Your task to perform on an android device: toggle translation in the chrome app Image 0: 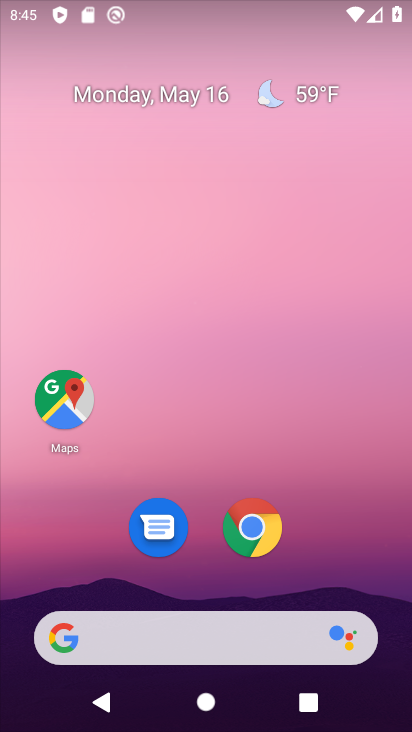
Step 0: click (254, 525)
Your task to perform on an android device: toggle translation in the chrome app Image 1: 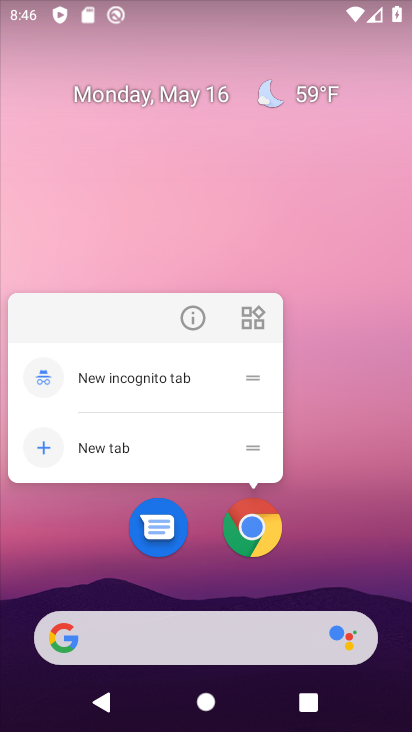
Step 1: click (254, 525)
Your task to perform on an android device: toggle translation in the chrome app Image 2: 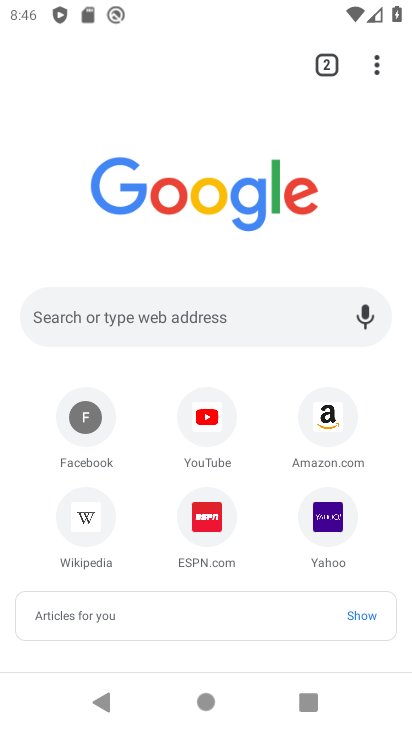
Step 2: click (372, 60)
Your task to perform on an android device: toggle translation in the chrome app Image 3: 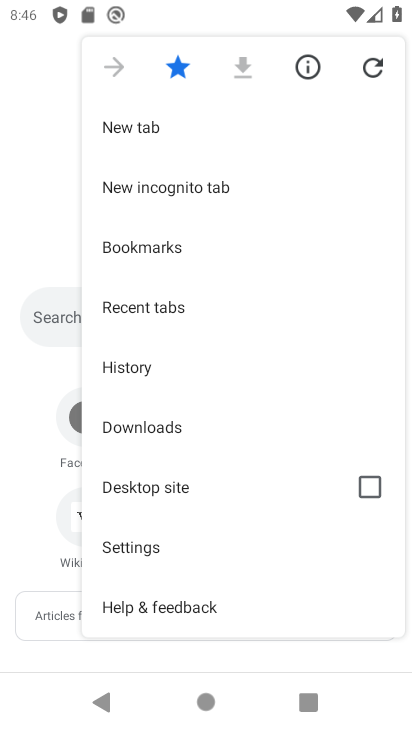
Step 3: click (134, 546)
Your task to perform on an android device: toggle translation in the chrome app Image 4: 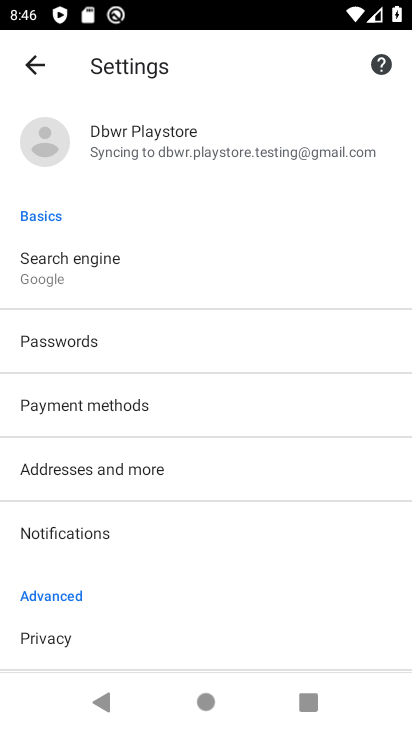
Step 4: drag from (255, 622) to (255, 376)
Your task to perform on an android device: toggle translation in the chrome app Image 5: 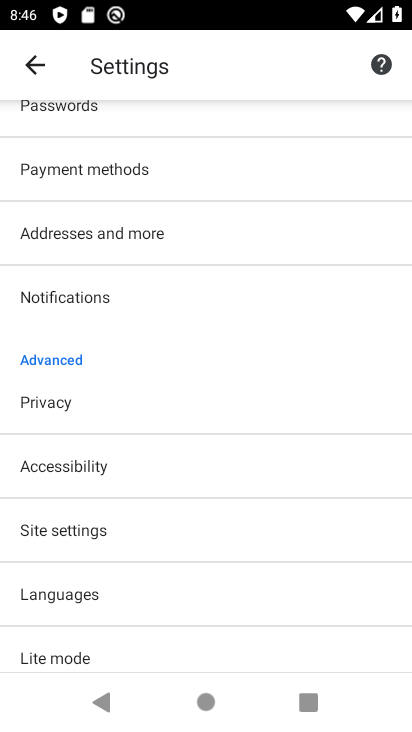
Step 5: click (65, 589)
Your task to perform on an android device: toggle translation in the chrome app Image 6: 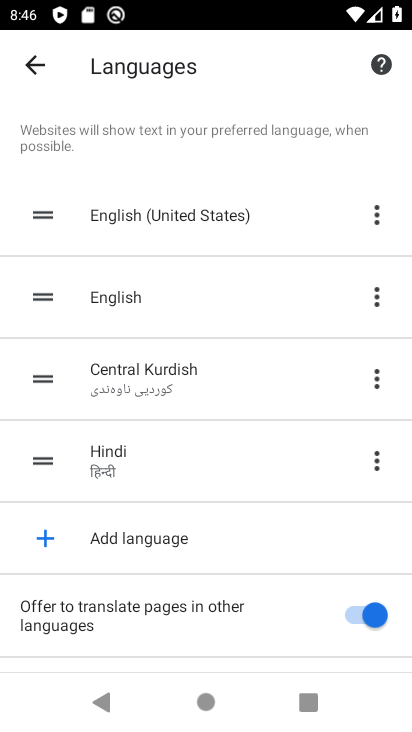
Step 6: drag from (298, 423) to (290, 239)
Your task to perform on an android device: toggle translation in the chrome app Image 7: 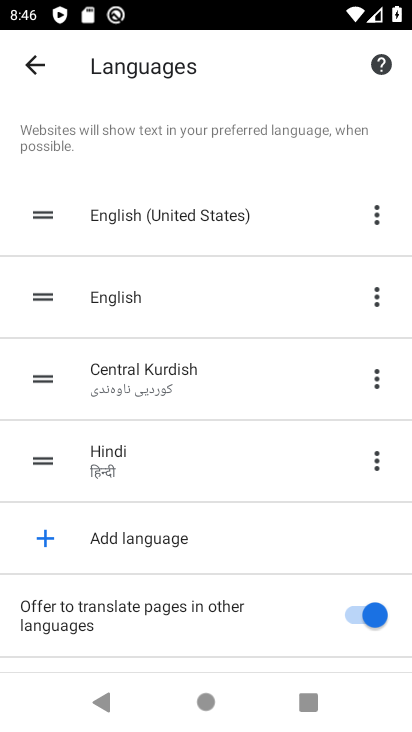
Step 7: drag from (270, 633) to (276, 337)
Your task to perform on an android device: toggle translation in the chrome app Image 8: 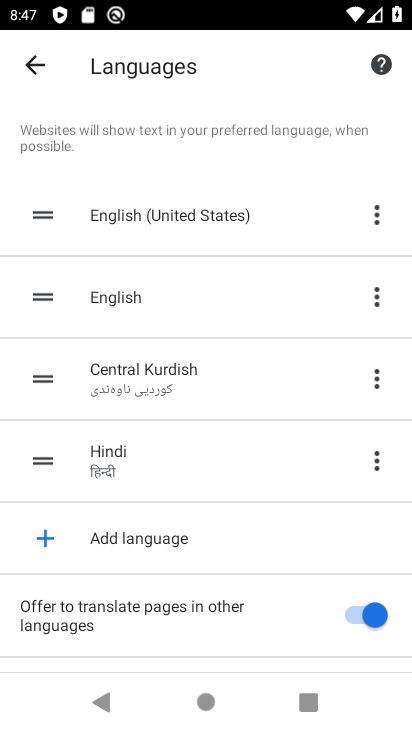
Step 8: drag from (271, 626) to (287, 336)
Your task to perform on an android device: toggle translation in the chrome app Image 9: 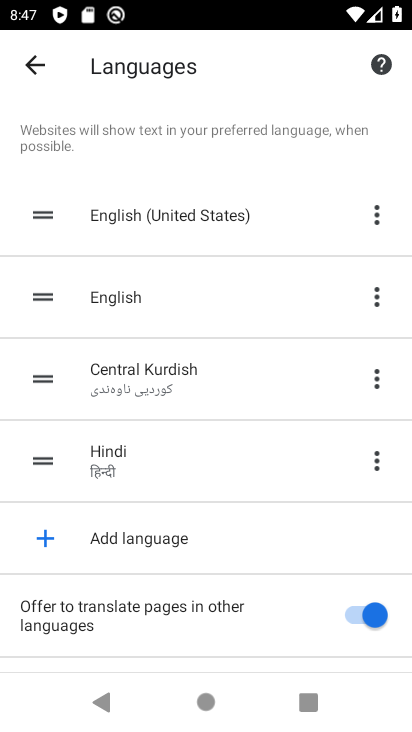
Step 9: click (360, 616)
Your task to perform on an android device: toggle translation in the chrome app Image 10: 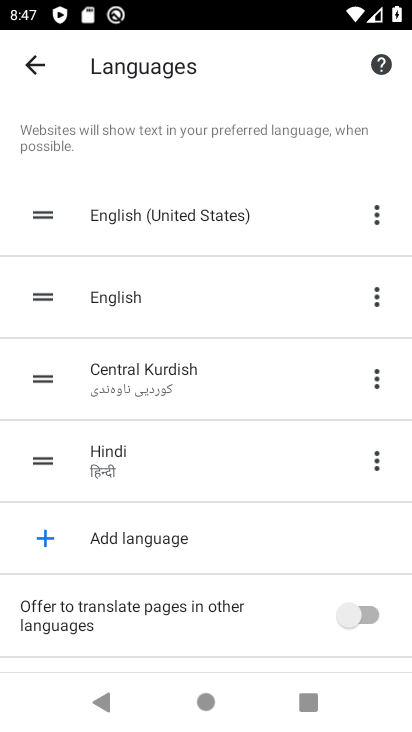
Step 10: task complete